Your task to perform on an android device: Open the map Image 0: 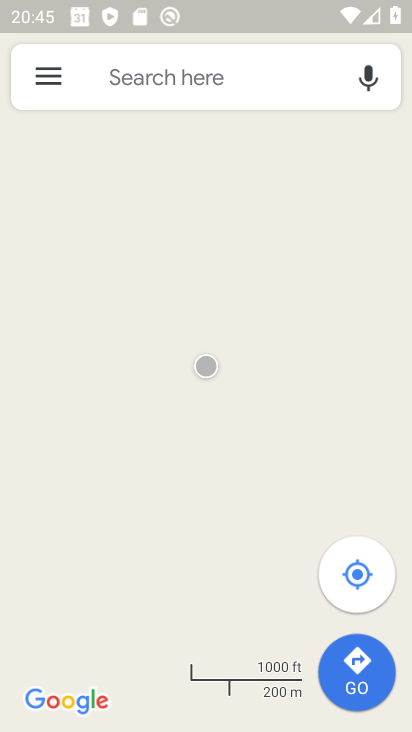
Step 0: press home button
Your task to perform on an android device: Open the map Image 1: 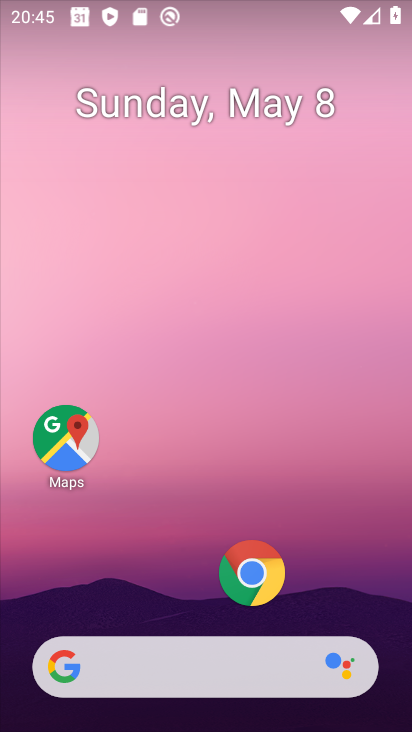
Step 1: click (61, 437)
Your task to perform on an android device: Open the map Image 2: 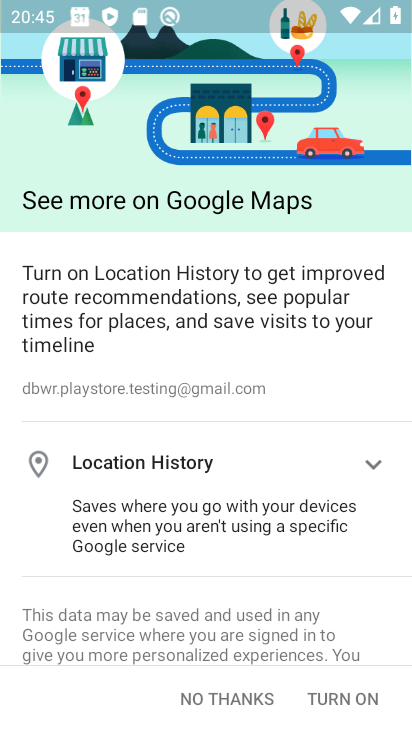
Step 2: click (356, 690)
Your task to perform on an android device: Open the map Image 3: 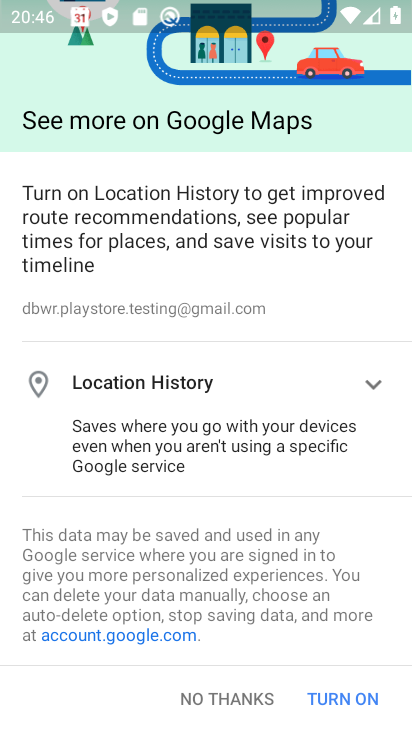
Step 3: click (344, 696)
Your task to perform on an android device: Open the map Image 4: 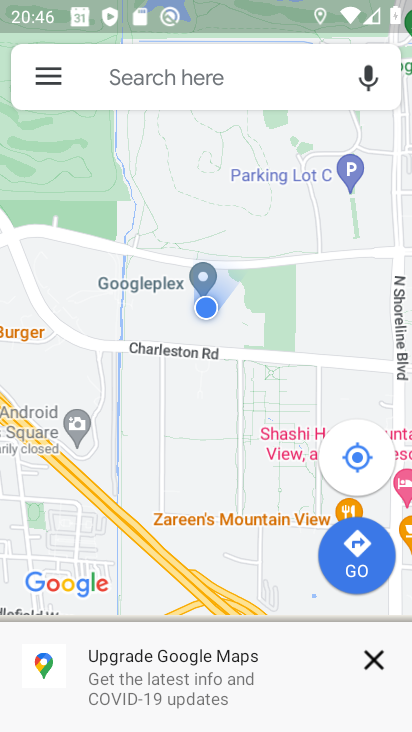
Step 4: task complete